Your task to perform on an android device: stop showing notifications on the lock screen Image 0: 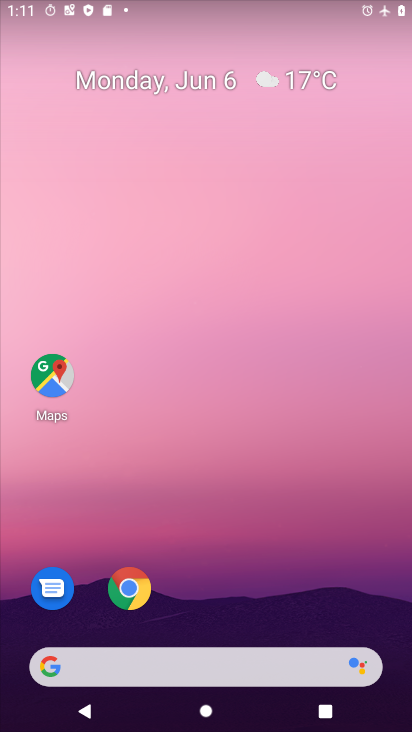
Step 0: drag from (271, 586) to (228, 193)
Your task to perform on an android device: stop showing notifications on the lock screen Image 1: 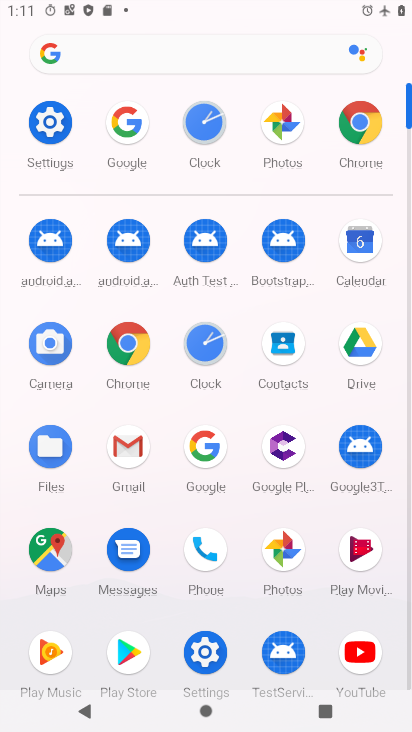
Step 1: click (57, 120)
Your task to perform on an android device: stop showing notifications on the lock screen Image 2: 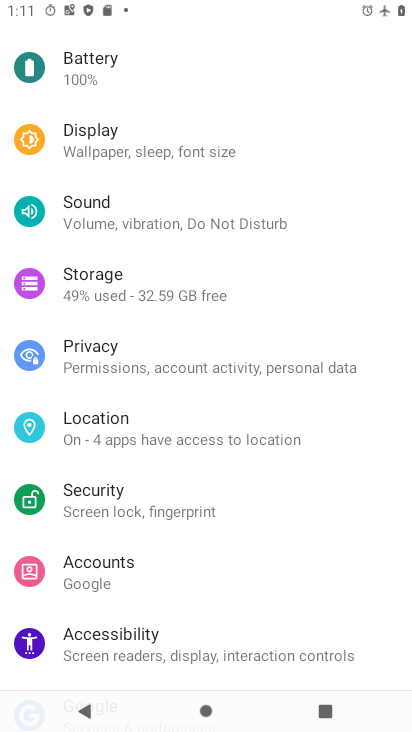
Step 2: drag from (124, 459) to (201, 645)
Your task to perform on an android device: stop showing notifications on the lock screen Image 3: 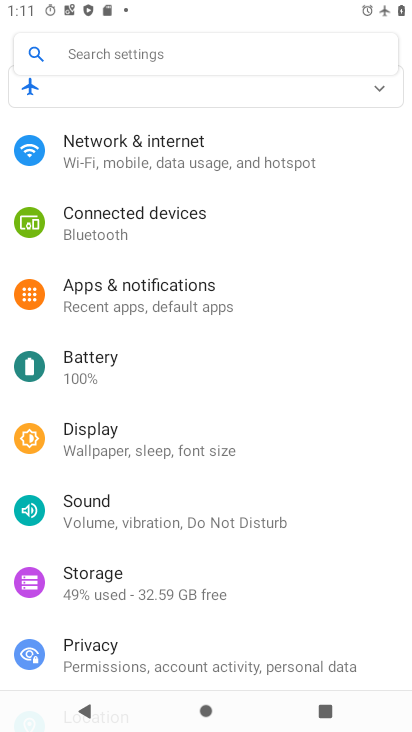
Step 3: click (183, 308)
Your task to perform on an android device: stop showing notifications on the lock screen Image 4: 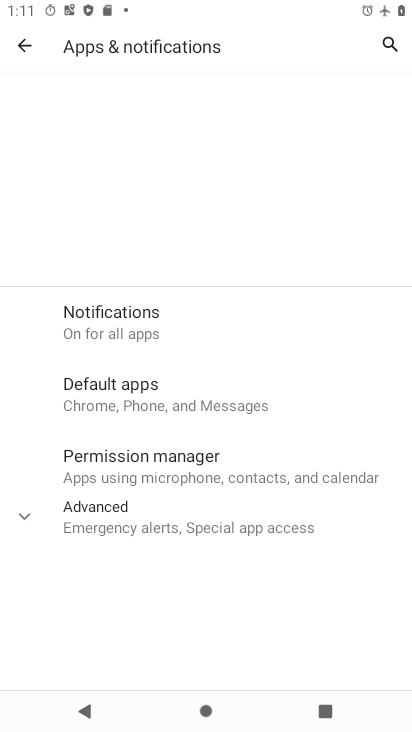
Step 4: click (150, 298)
Your task to perform on an android device: stop showing notifications on the lock screen Image 5: 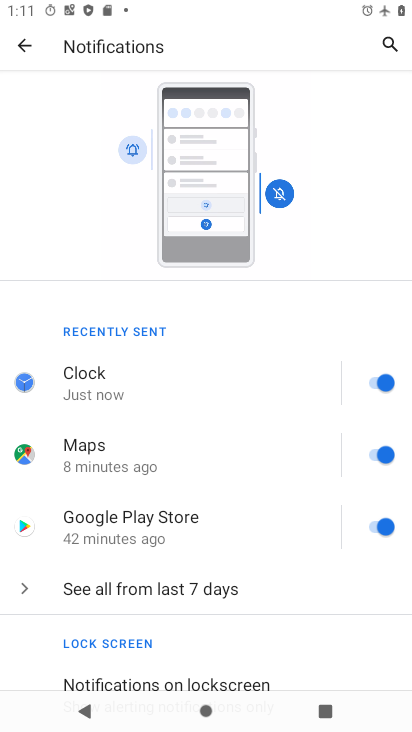
Step 5: click (234, 665)
Your task to perform on an android device: stop showing notifications on the lock screen Image 6: 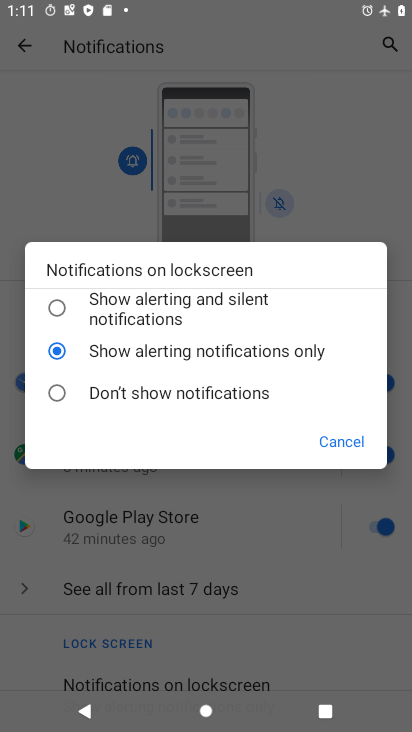
Step 6: click (178, 397)
Your task to perform on an android device: stop showing notifications on the lock screen Image 7: 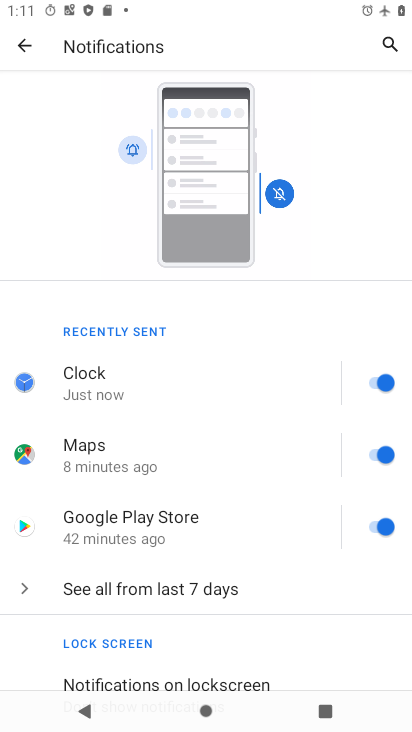
Step 7: task complete